Your task to perform on an android device: What's the weather going to be this weekend? Image 0: 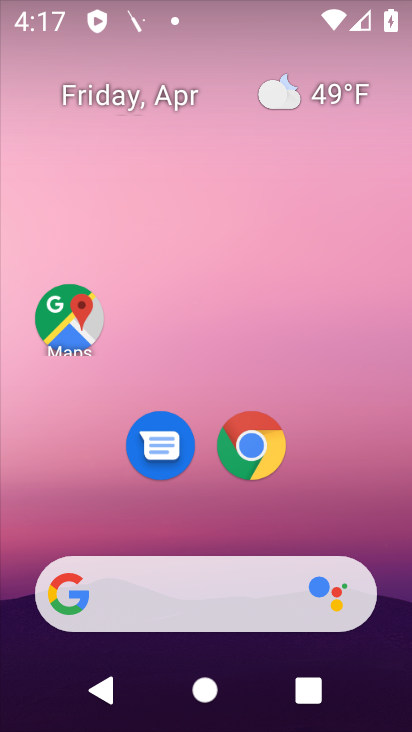
Step 0: drag from (356, 480) to (318, 52)
Your task to perform on an android device: What's the weather going to be this weekend? Image 1: 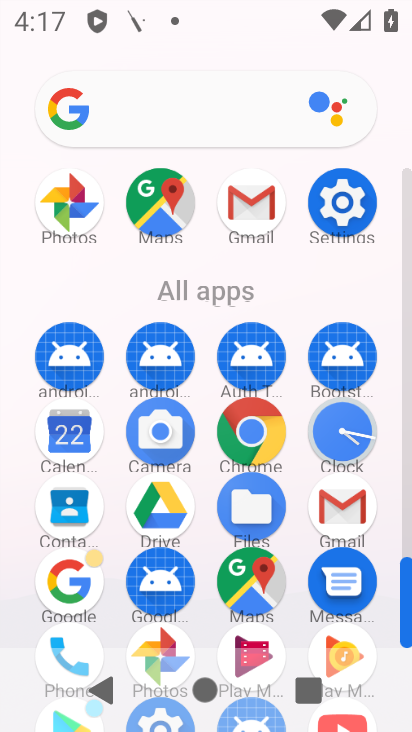
Step 1: click (258, 430)
Your task to perform on an android device: What's the weather going to be this weekend? Image 2: 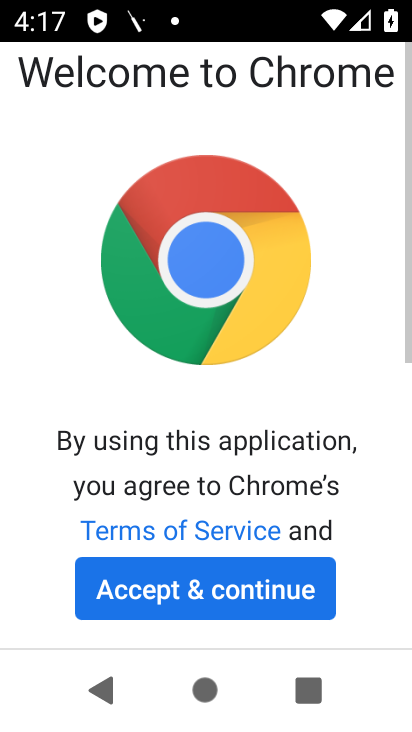
Step 2: click (242, 593)
Your task to perform on an android device: What's the weather going to be this weekend? Image 3: 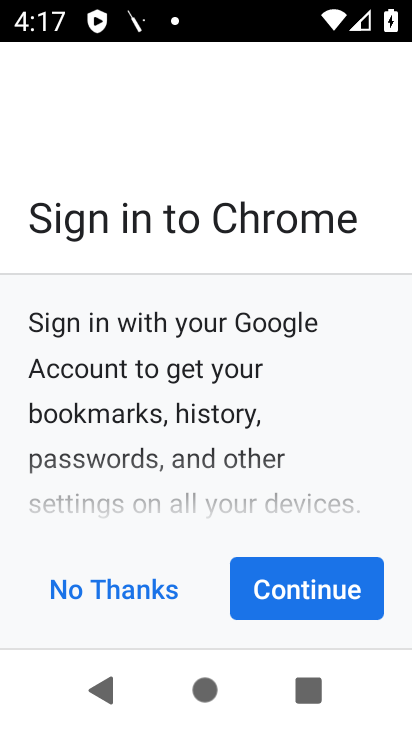
Step 3: click (267, 583)
Your task to perform on an android device: What's the weather going to be this weekend? Image 4: 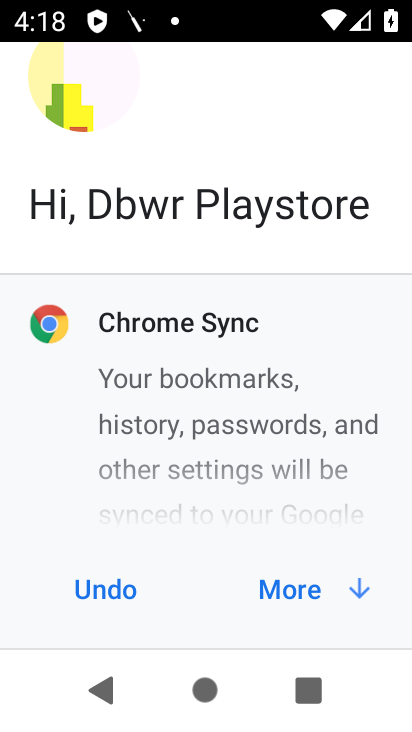
Step 4: click (267, 583)
Your task to perform on an android device: What's the weather going to be this weekend? Image 5: 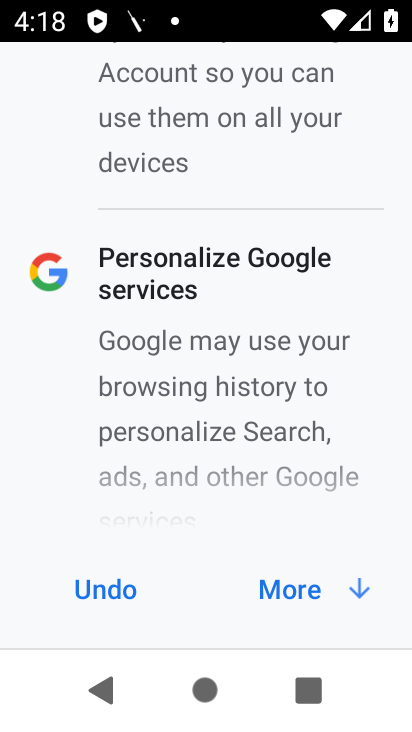
Step 5: click (267, 583)
Your task to perform on an android device: What's the weather going to be this weekend? Image 6: 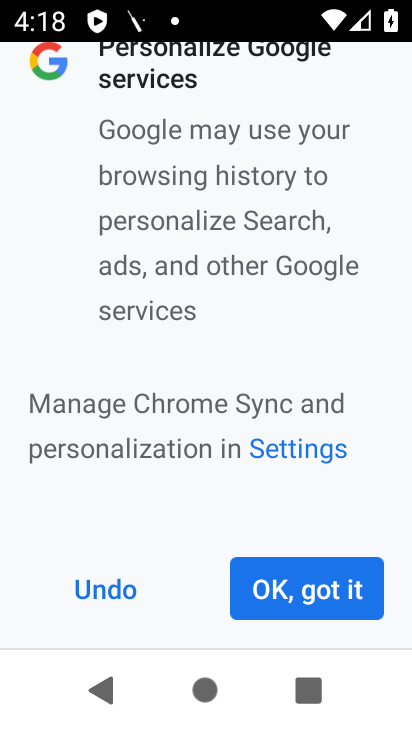
Step 6: click (267, 583)
Your task to perform on an android device: What's the weather going to be this weekend? Image 7: 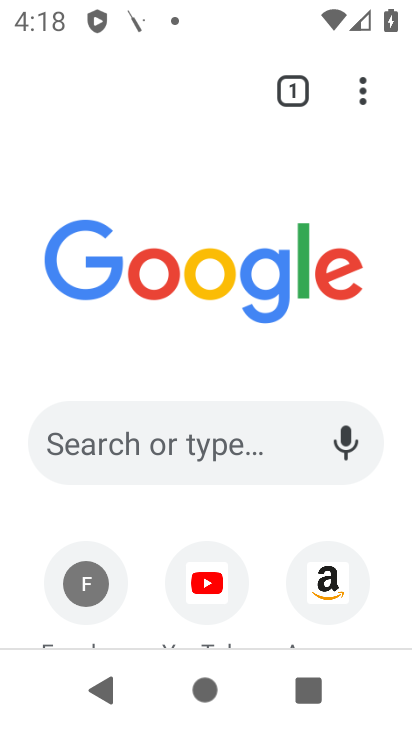
Step 7: click (201, 427)
Your task to perform on an android device: What's the weather going to be this weekend? Image 8: 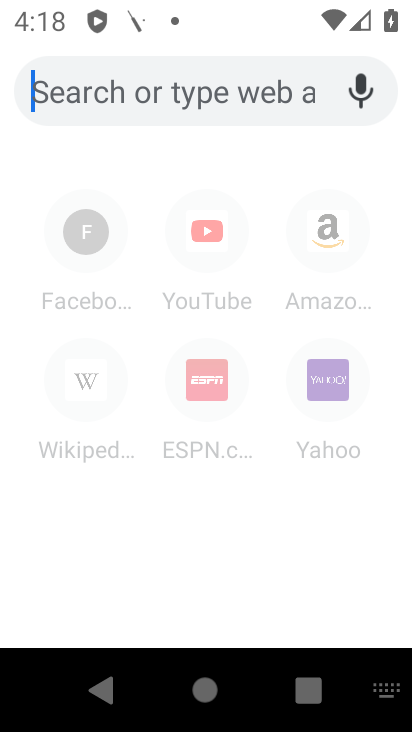
Step 8: type "weather"
Your task to perform on an android device: What's the weather going to be this weekend? Image 9: 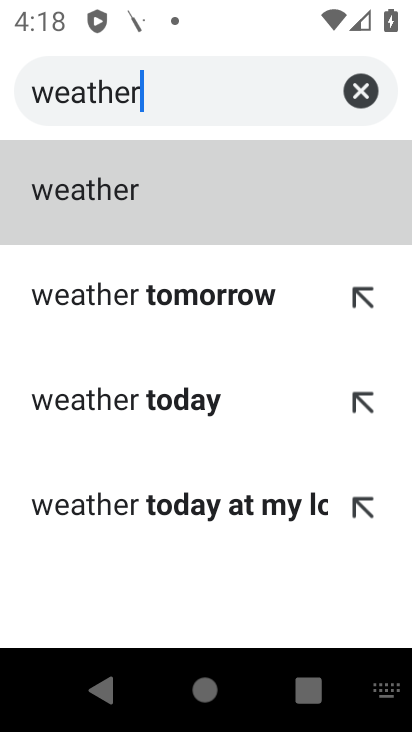
Step 9: press enter
Your task to perform on an android device: What's the weather going to be this weekend? Image 10: 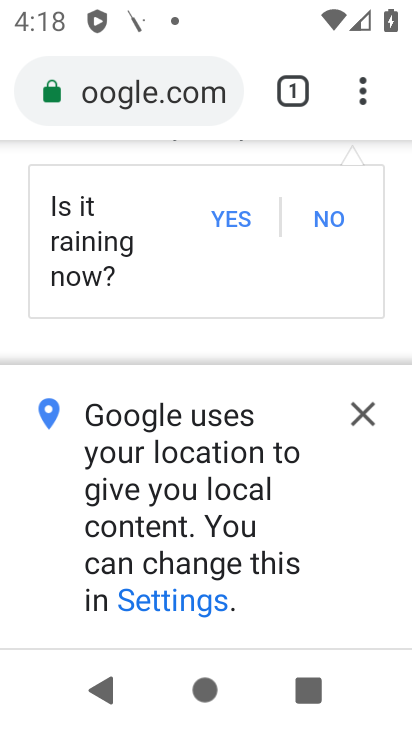
Step 10: click (353, 406)
Your task to perform on an android device: What's the weather going to be this weekend? Image 11: 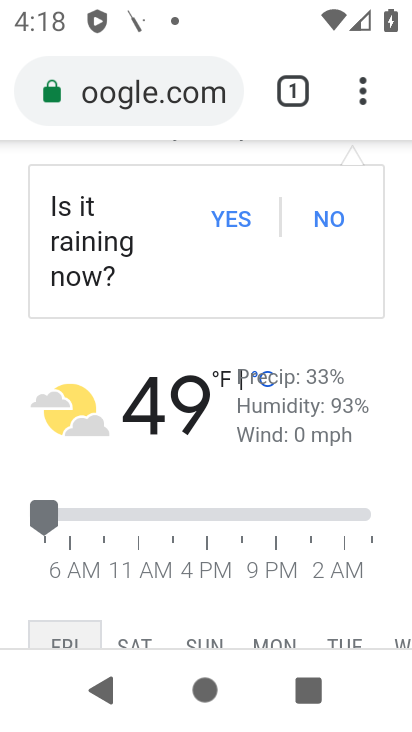
Step 11: task complete